Your task to perform on an android device: read, delete, or share a saved page in the chrome app Image 0: 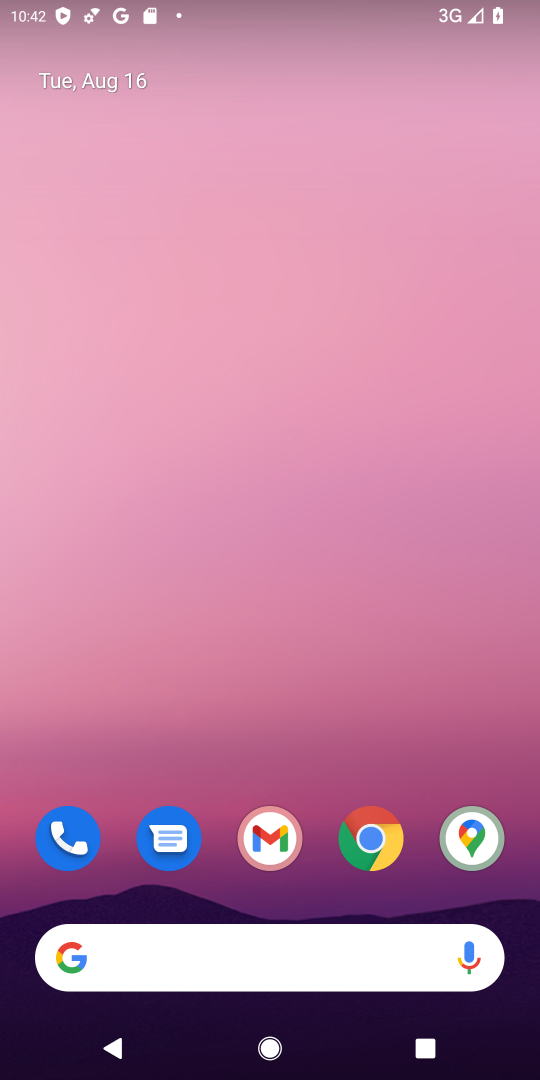
Step 0: press home button
Your task to perform on an android device: read, delete, or share a saved page in the chrome app Image 1: 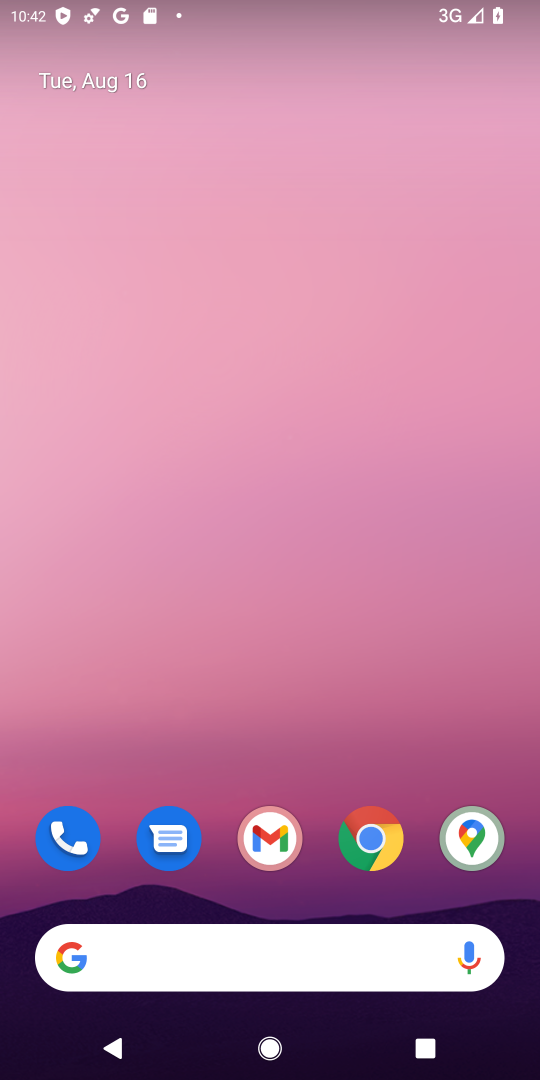
Step 1: click (371, 838)
Your task to perform on an android device: read, delete, or share a saved page in the chrome app Image 2: 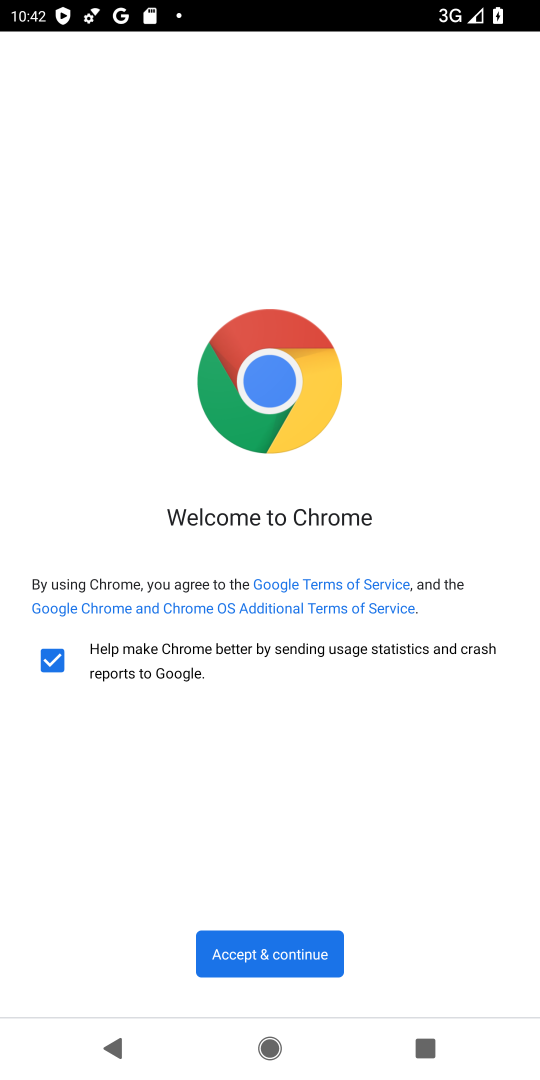
Step 2: click (265, 960)
Your task to perform on an android device: read, delete, or share a saved page in the chrome app Image 3: 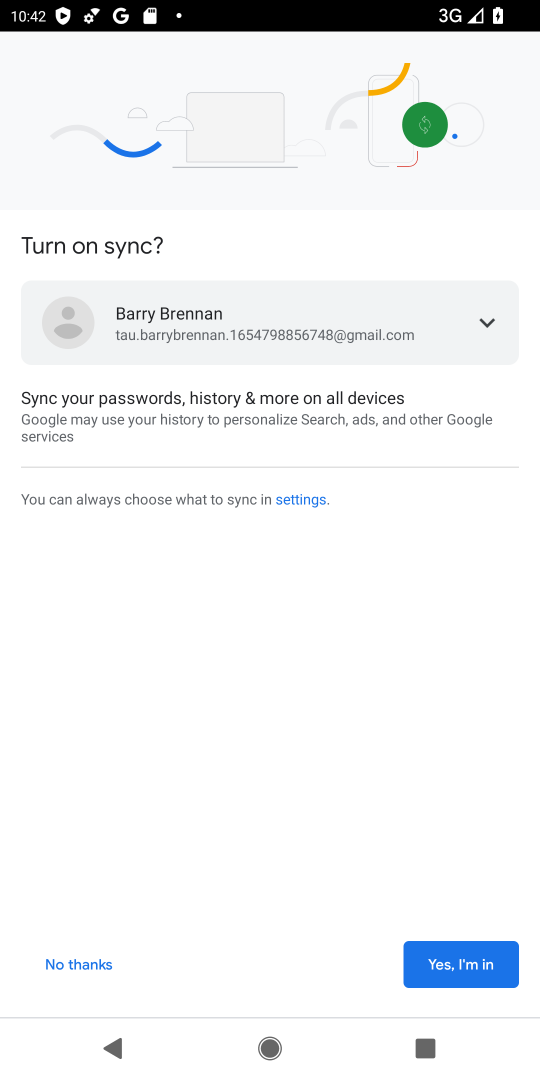
Step 3: click (446, 961)
Your task to perform on an android device: read, delete, or share a saved page in the chrome app Image 4: 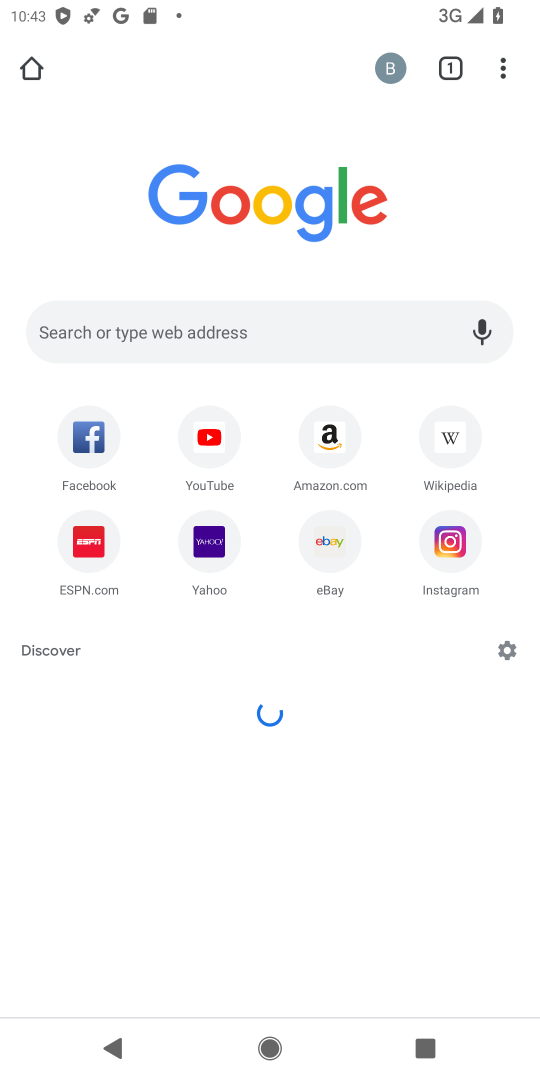
Step 4: drag from (505, 68) to (339, 336)
Your task to perform on an android device: read, delete, or share a saved page in the chrome app Image 5: 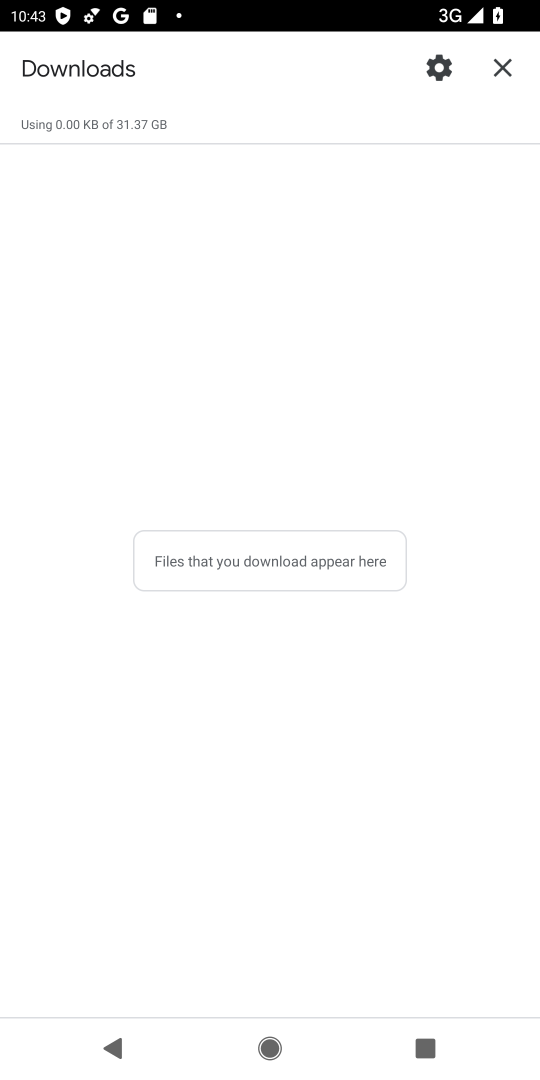
Step 5: click (141, 75)
Your task to perform on an android device: read, delete, or share a saved page in the chrome app Image 6: 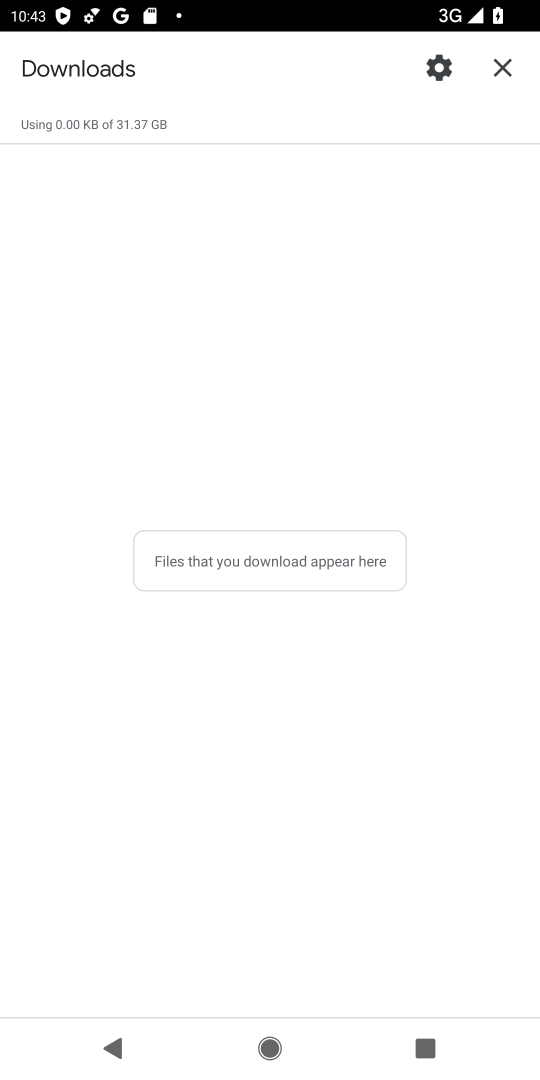
Step 6: task complete